Your task to perform on an android device: Go to Yahoo.com Image 0: 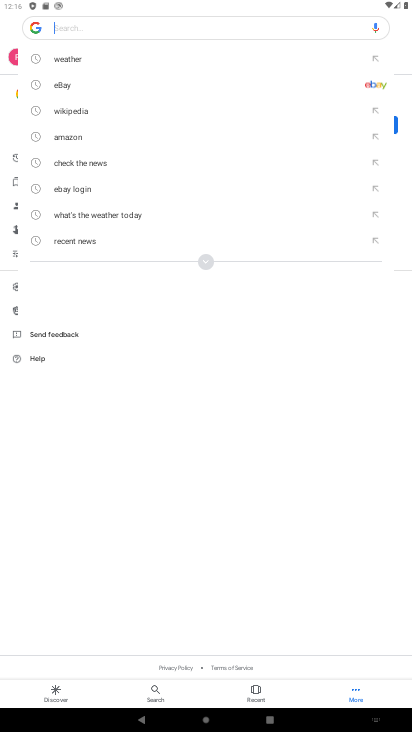
Step 0: press home button
Your task to perform on an android device: Go to Yahoo.com Image 1: 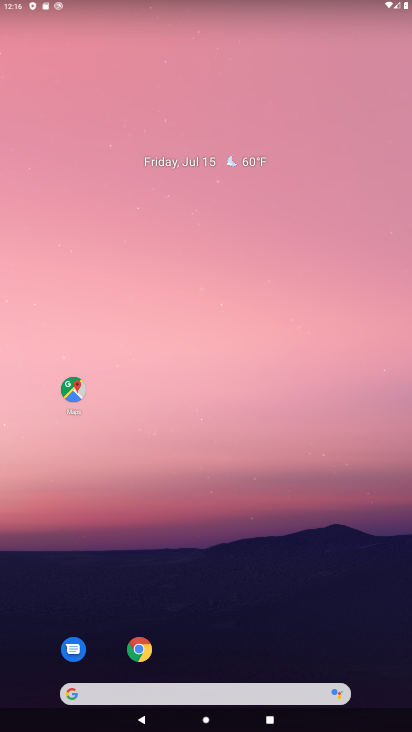
Step 1: drag from (170, 690) to (253, 335)
Your task to perform on an android device: Go to Yahoo.com Image 2: 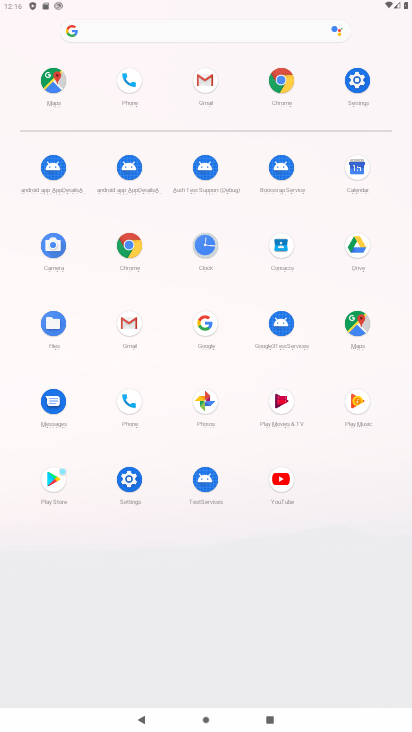
Step 2: click (271, 72)
Your task to perform on an android device: Go to Yahoo.com Image 3: 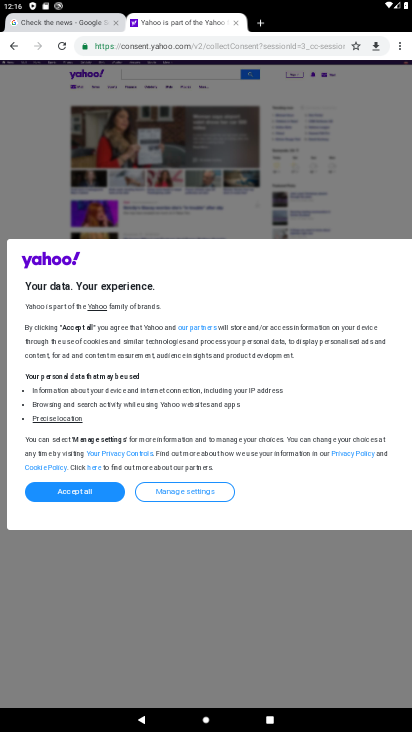
Step 3: task complete